Your task to perform on an android device: Go to Reddit.com Image 0: 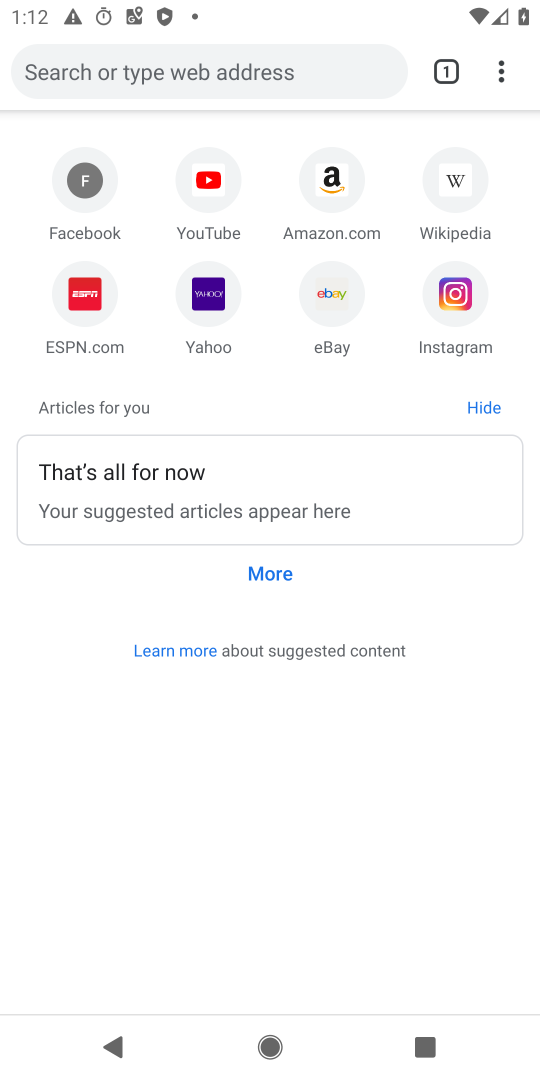
Step 0: press home button
Your task to perform on an android device: Go to Reddit.com Image 1: 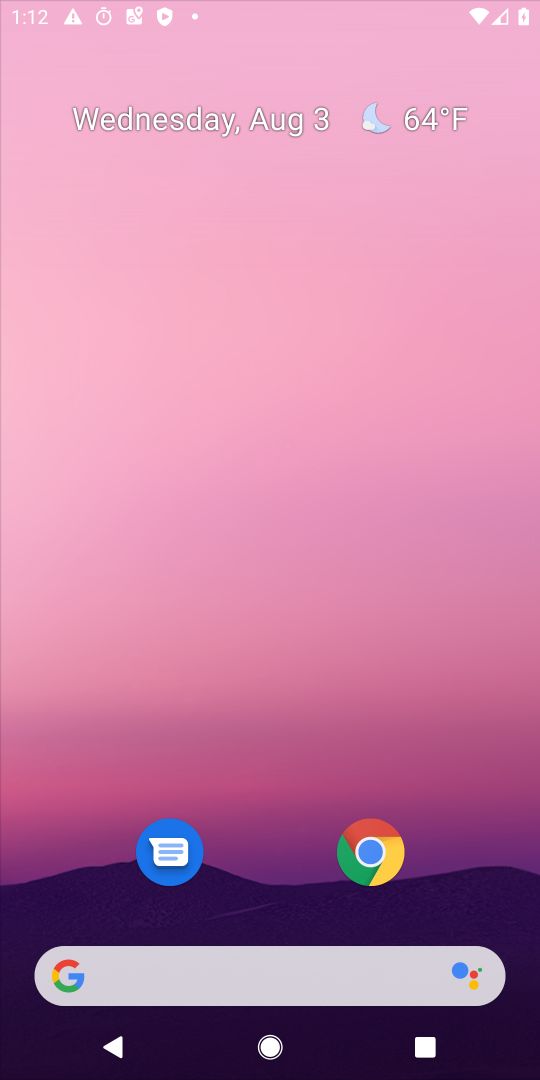
Step 1: drag from (503, 965) to (182, 32)
Your task to perform on an android device: Go to Reddit.com Image 2: 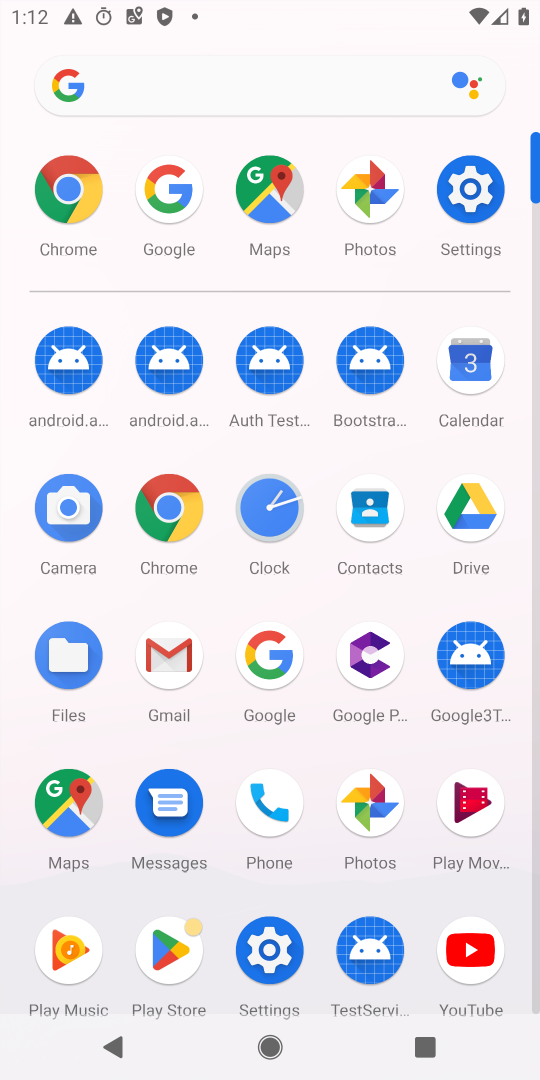
Step 2: click (276, 667)
Your task to perform on an android device: Go to Reddit.com Image 3: 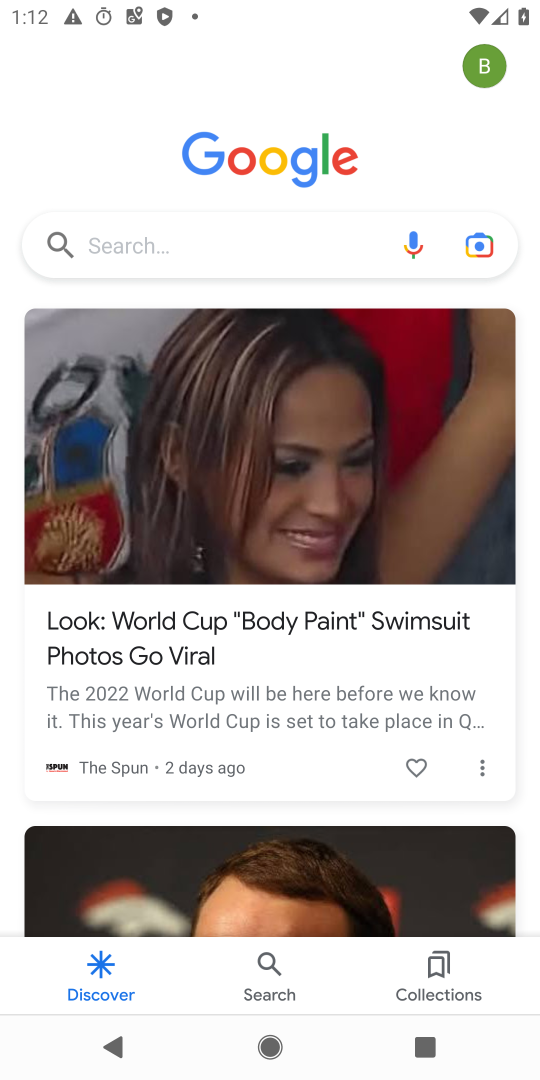
Step 3: click (158, 254)
Your task to perform on an android device: Go to Reddit.com Image 4: 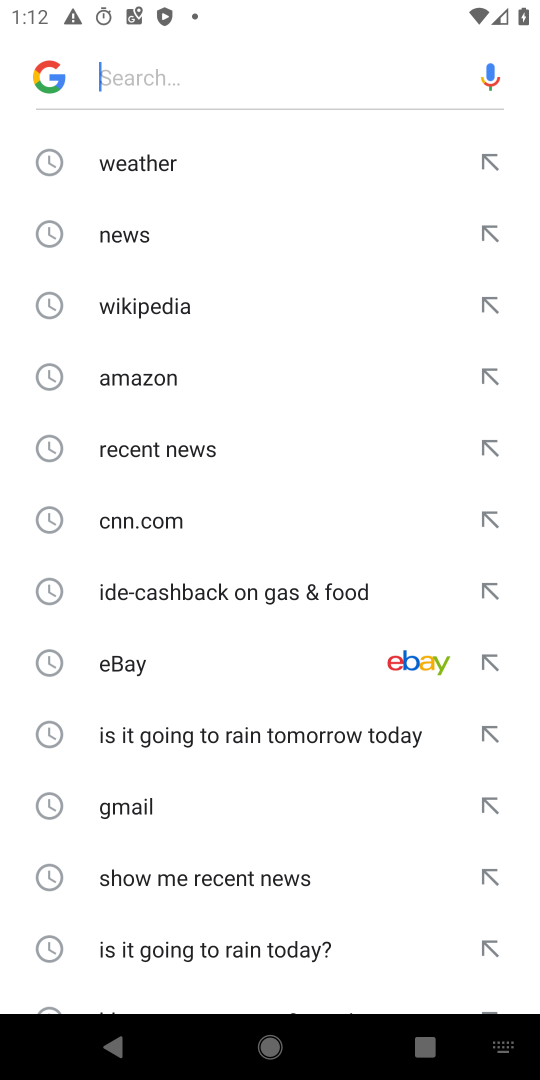
Step 4: type "Reddit.com"
Your task to perform on an android device: Go to Reddit.com Image 5: 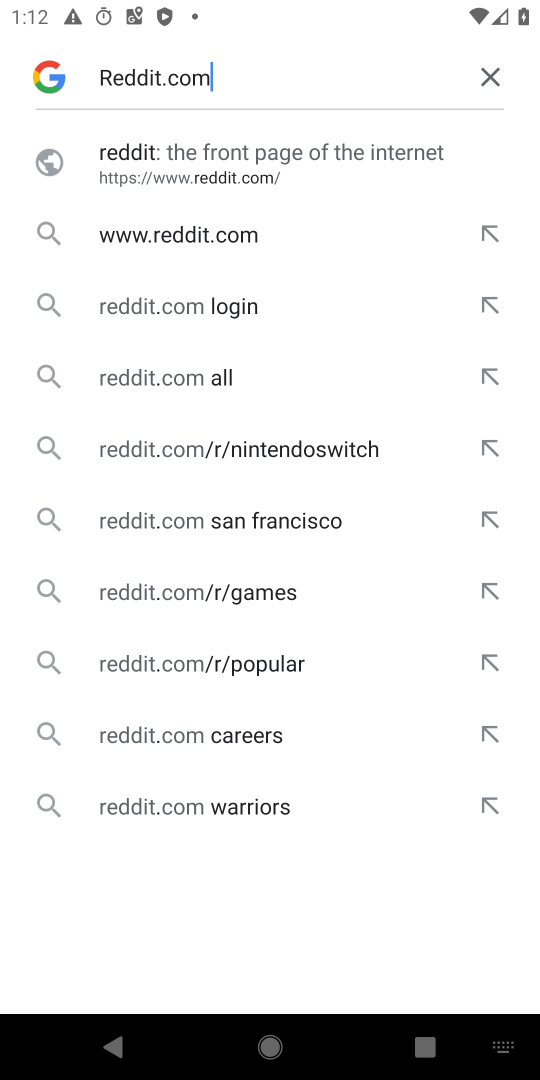
Step 5: click (155, 165)
Your task to perform on an android device: Go to Reddit.com Image 6: 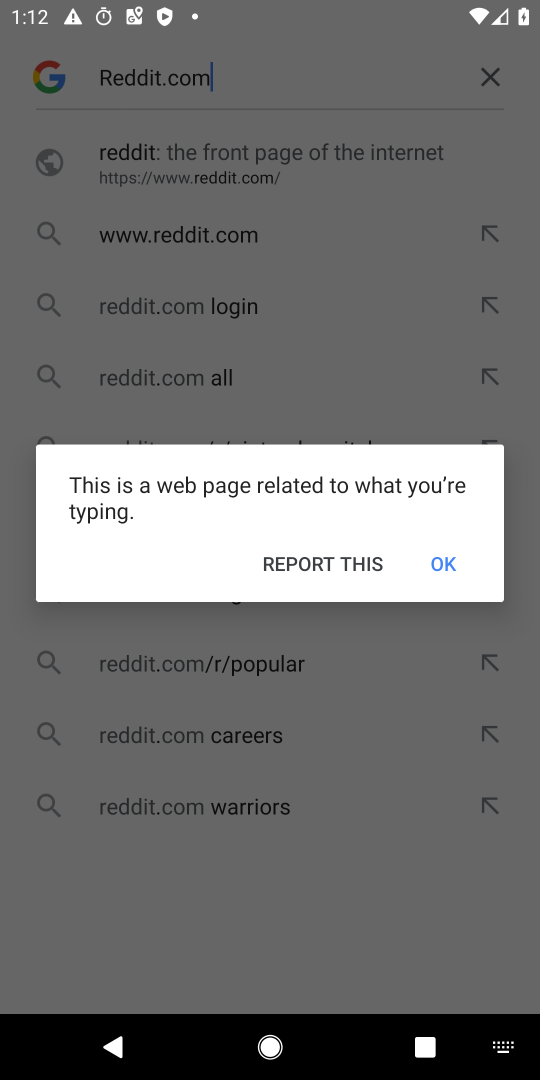
Step 6: click (440, 554)
Your task to perform on an android device: Go to Reddit.com Image 7: 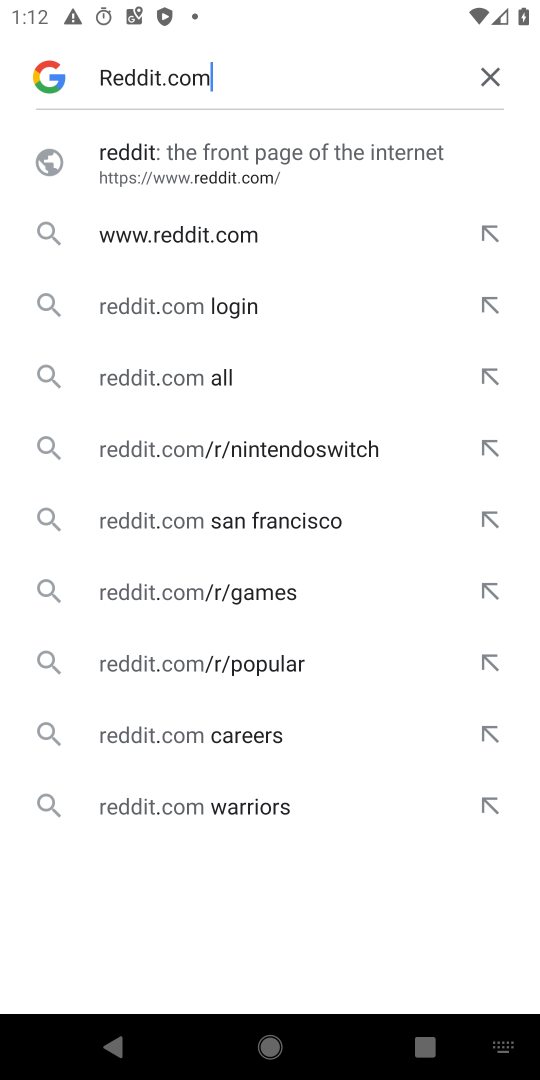
Step 7: click (223, 172)
Your task to perform on an android device: Go to Reddit.com Image 8: 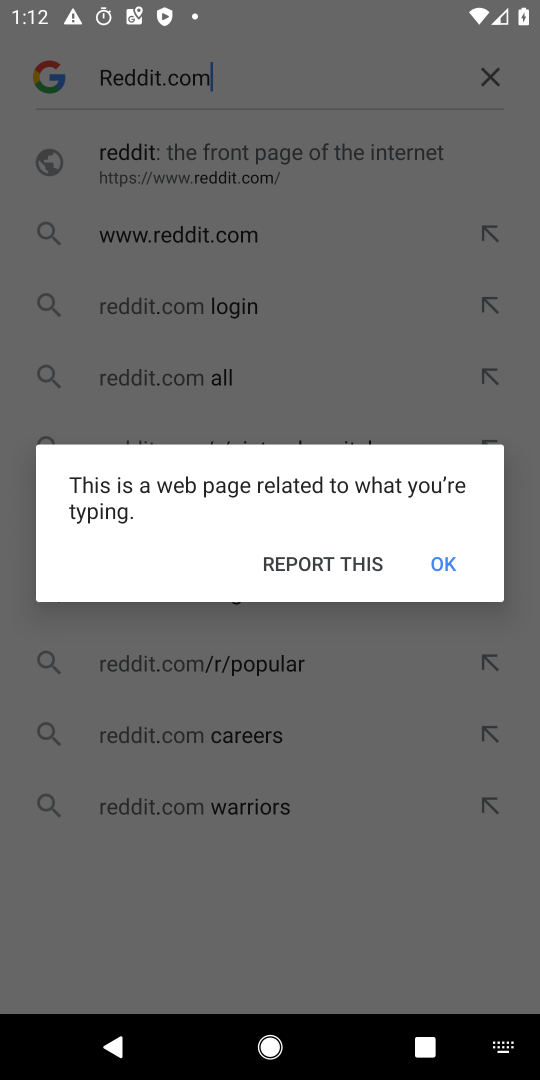
Step 8: task complete